Your task to perform on an android device: show emergency info Image 0: 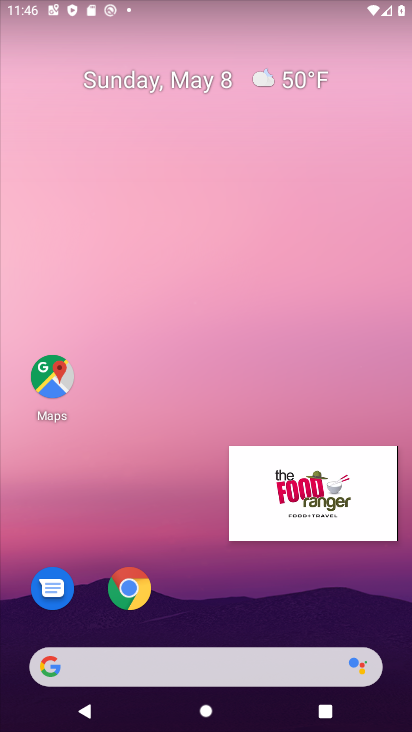
Step 0: click (329, 489)
Your task to perform on an android device: show emergency info Image 1: 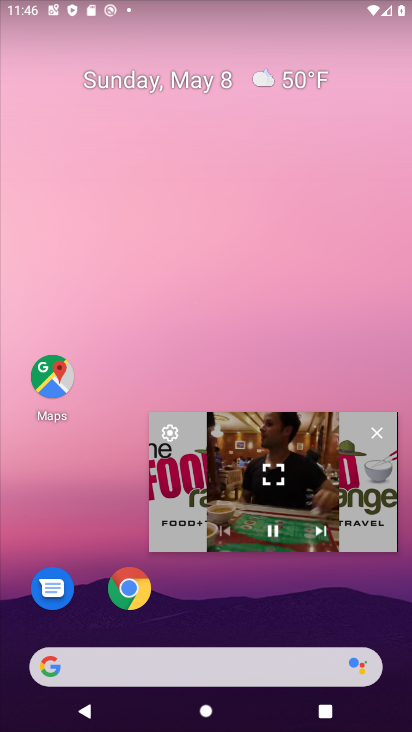
Step 1: click (278, 476)
Your task to perform on an android device: show emergency info Image 2: 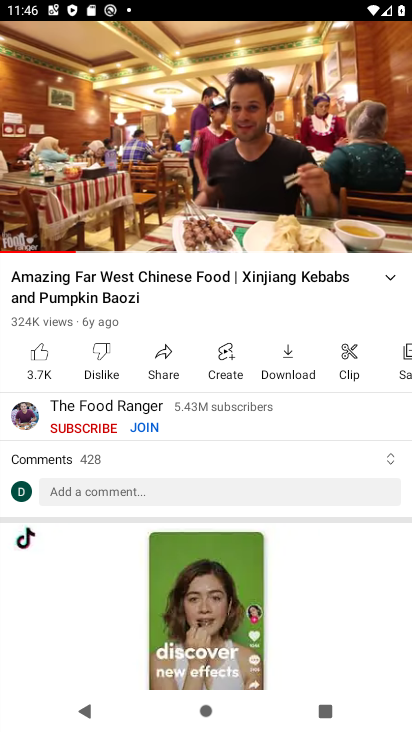
Step 2: click (134, 100)
Your task to perform on an android device: show emergency info Image 3: 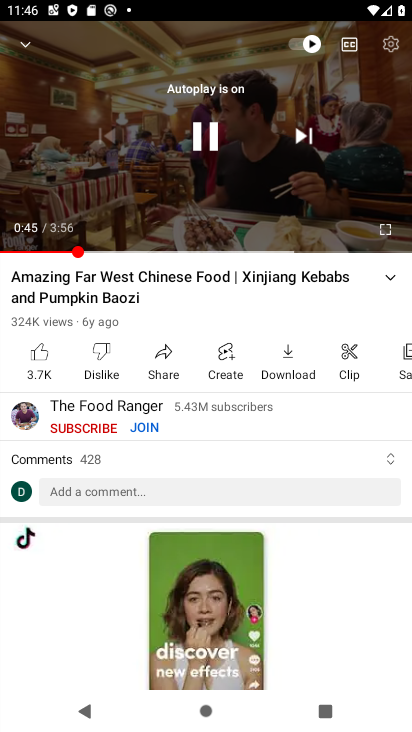
Step 3: click (216, 138)
Your task to perform on an android device: show emergency info Image 4: 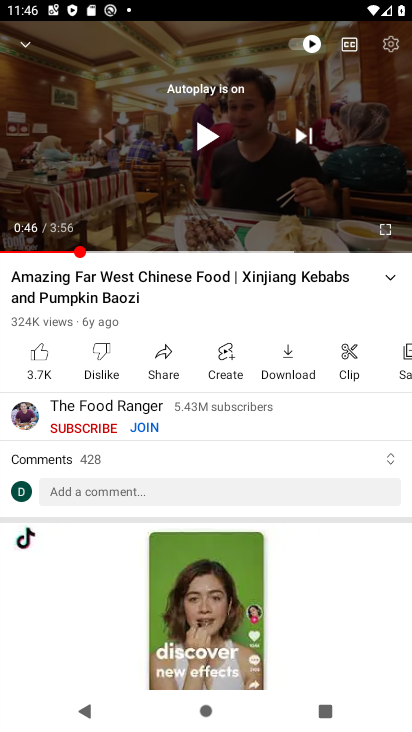
Step 4: press home button
Your task to perform on an android device: show emergency info Image 5: 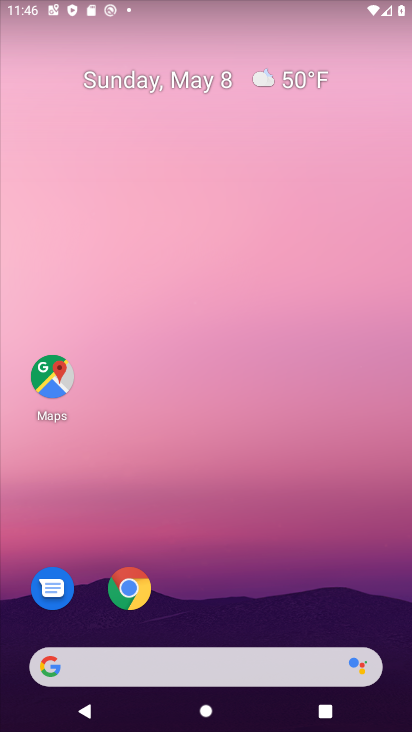
Step 5: drag from (159, 561) to (308, 33)
Your task to perform on an android device: show emergency info Image 6: 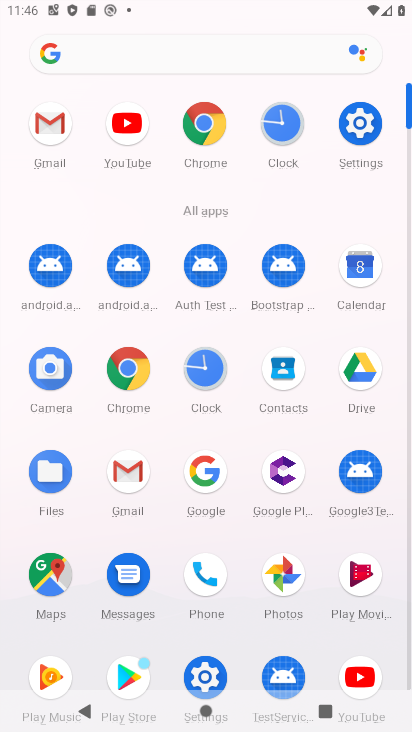
Step 6: click (365, 118)
Your task to perform on an android device: show emergency info Image 7: 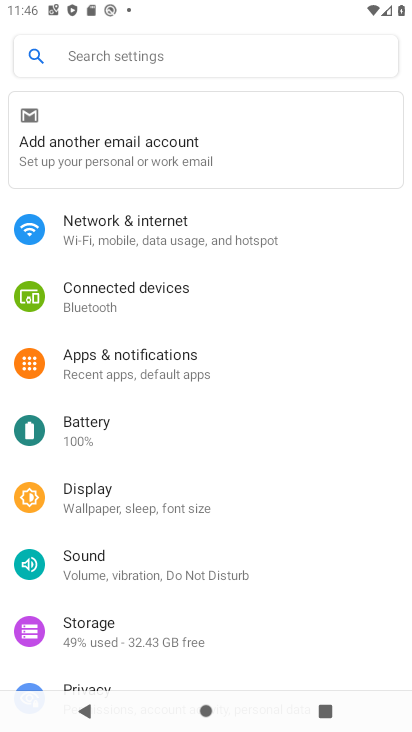
Step 7: drag from (193, 583) to (282, 87)
Your task to perform on an android device: show emergency info Image 8: 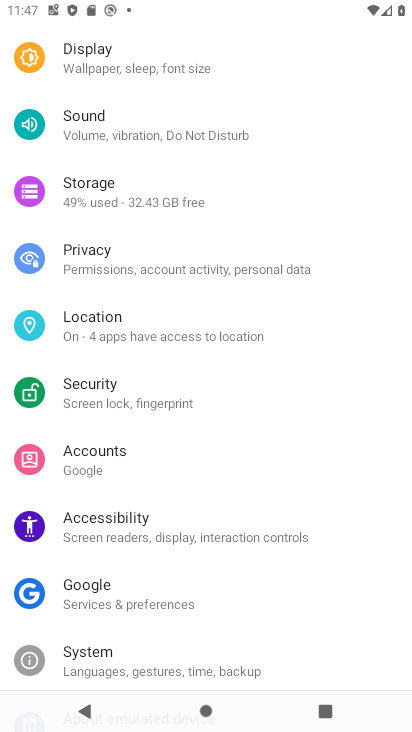
Step 8: drag from (173, 536) to (297, 42)
Your task to perform on an android device: show emergency info Image 9: 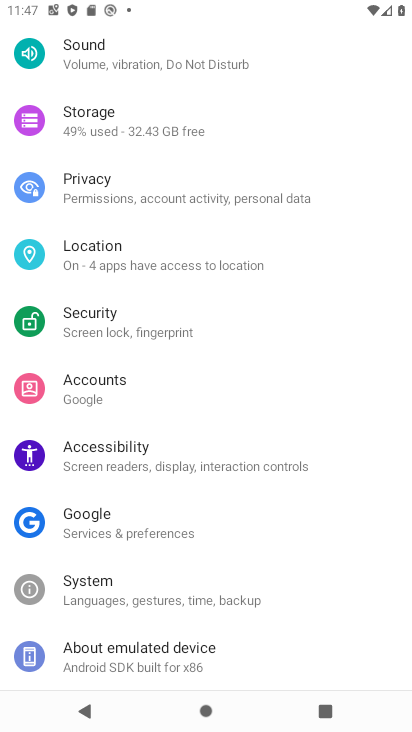
Step 9: click (133, 658)
Your task to perform on an android device: show emergency info Image 10: 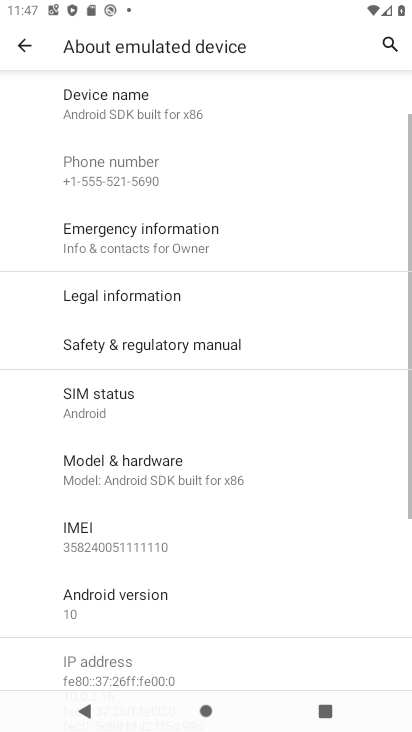
Step 10: click (148, 234)
Your task to perform on an android device: show emergency info Image 11: 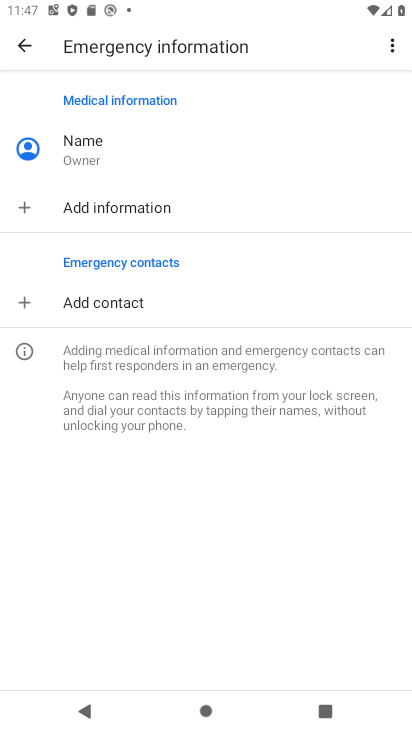
Step 11: task complete